Your task to perform on an android device: open app "WhatsApp Messenger" (install if not already installed) Image 0: 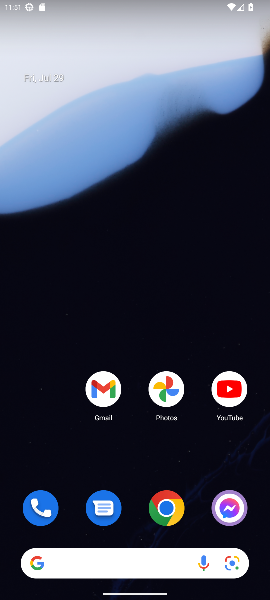
Step 0: drag from (151, 532) to (163, 56)
Your task to perform on an android device: open app "WhatsApp Messenger" (install if not already installed) Image 1: 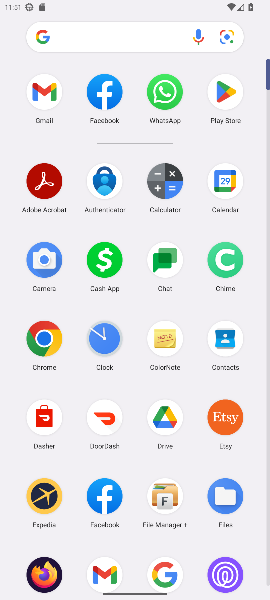
Step 1: click (229, 85)
Your task to perform on an android device: open app "WhatsApp Messenger" (install if not already installed) Image 2: 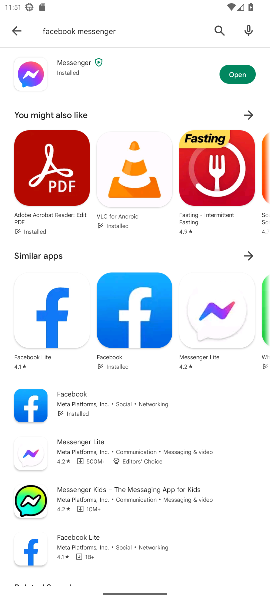
Step 2: click (219, 26)
Your task to perform on an android device: open app "WhatsApp Messenger" (install if not already installed) Image 3: 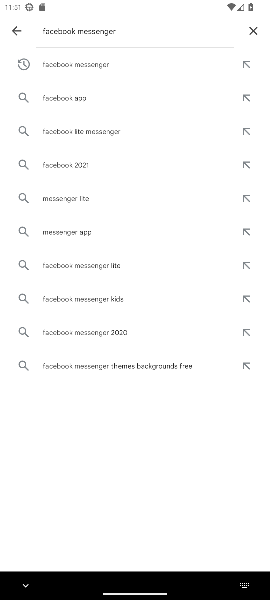
Step 3: click (250, 34)
Your task to perform on an android device: open app "WhatsApp Messenger" (install if not already installed) Image 4: 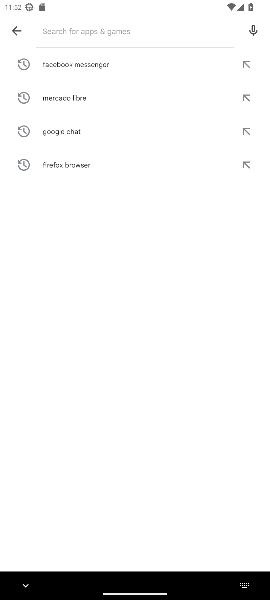
Step 4: type "whatsapp messenger"
Your task to perform on an android device: open app "WhatsApp Messenger" (install if not already installed) Image 5: 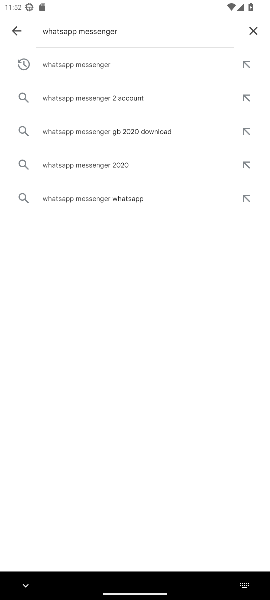
Step 5: click (99, 64)
Your task to perform on an android device: open app "WhatsApp Messenger" (install if not already installed) Image 6: 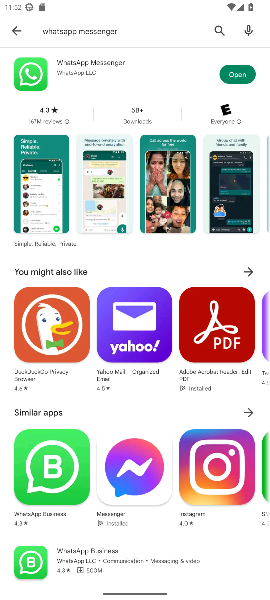
Step 6: click (250, 74)
Your task to perform on an android device: open app "WhatsApp Messenger" (install if not already installed) Image 7: 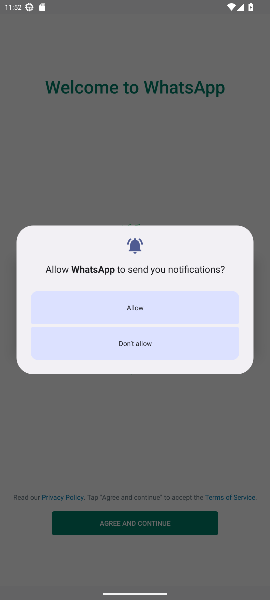
Step 7: task complete